Your task to perform on an android device: Is it going to rain tomorrow? Image 0: 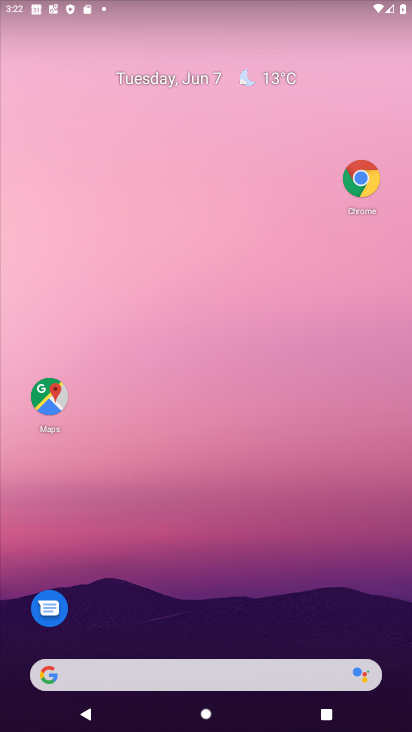
Step 0: click (266, 83)
Your task to perform on an android device: Is it going to rain tomorrow? Image 1: 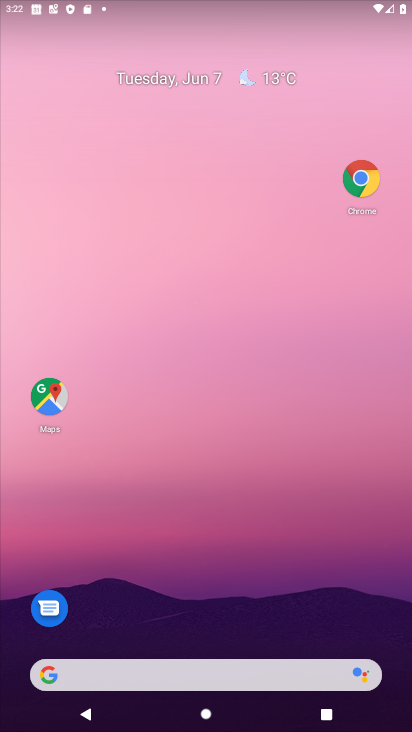
Step 1: click (264, 83)
Your task to perform on an android device: Is it going to rain tomorrow? Image 2: 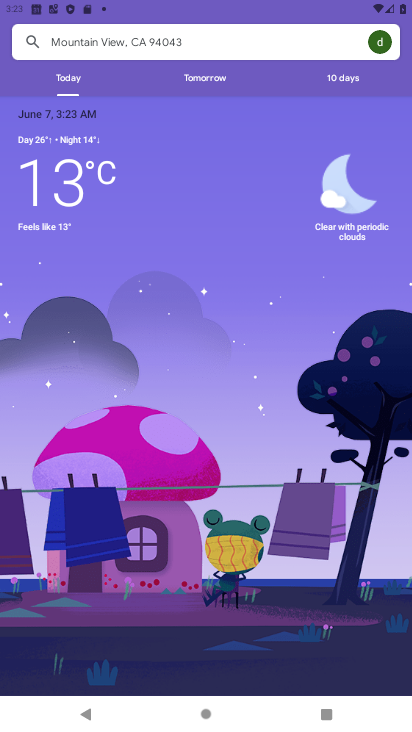
Step 2: click (238, 84)
Your task to perform on an android device: Is it going to rain tomorrow? Image 3: 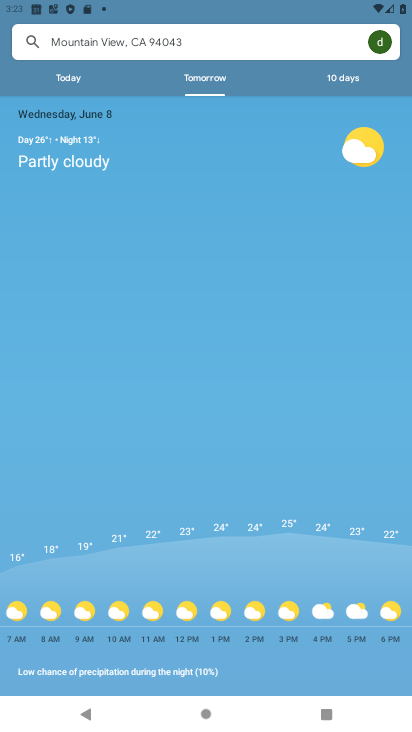
Step 3: task complete